Your task to perform on an android device: Go to Android settings Image 0: 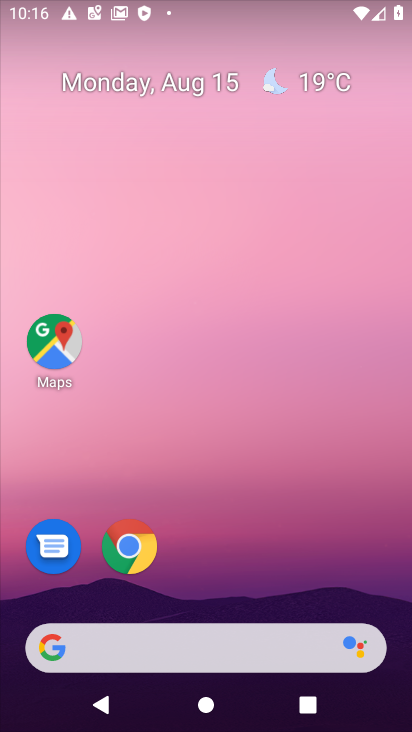
Step 0: drag from (233, 597) to (239, 42)
Your task to perform on an android device: Go to Android settings Image 1: 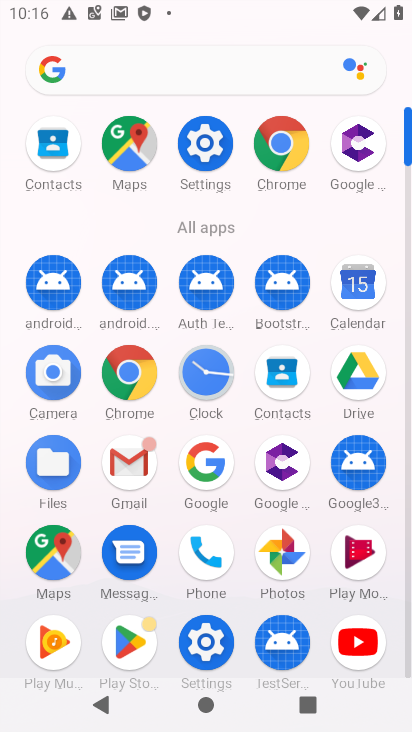
Step 1: click (202, 147)
Your task to perform on an android device: Go to Android settings Image 2: 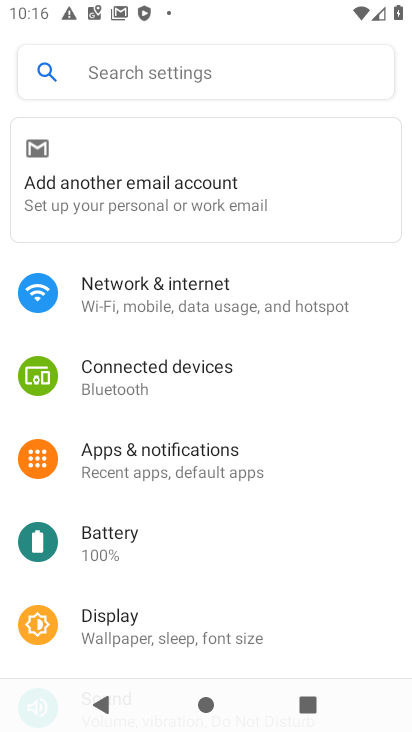
Step 2: task complete